Your task to perform on an android device: Find coffee shops on Maps Image 0: 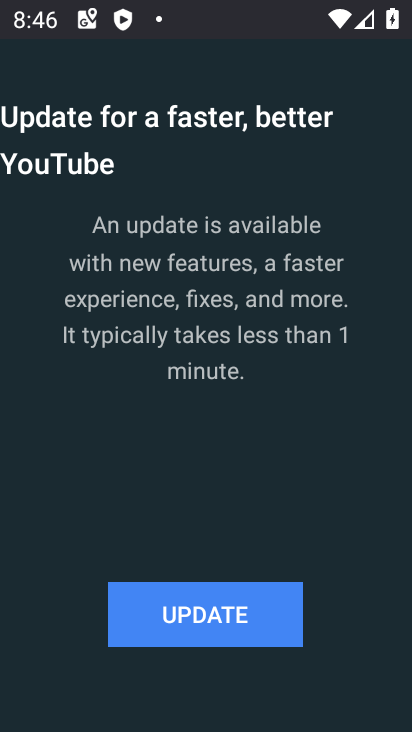
Step 0: press back button
Your task to perform on an android device: Find coffee shops on Maps Image 1: 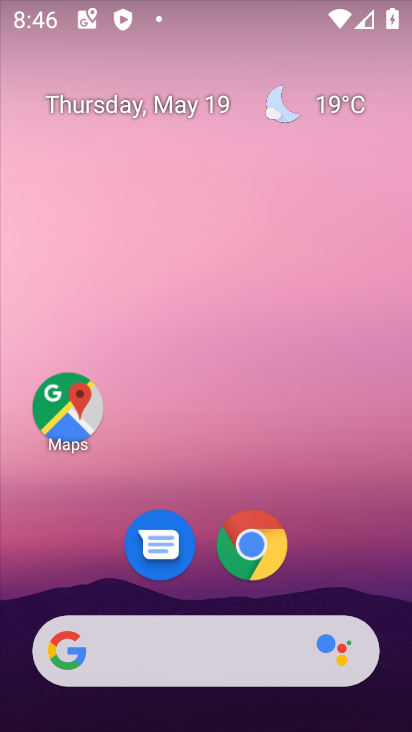
Step 1: click (337, 553)
Your task to perform on an android device: Find coffee shops on Maps Image 2: 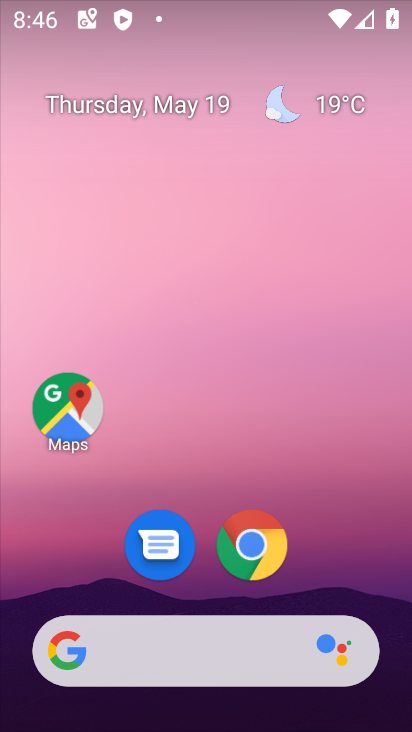
Step 2: click (274, 553)
Your task to perform on an android device: Find coffee shops on Maps Image 3: 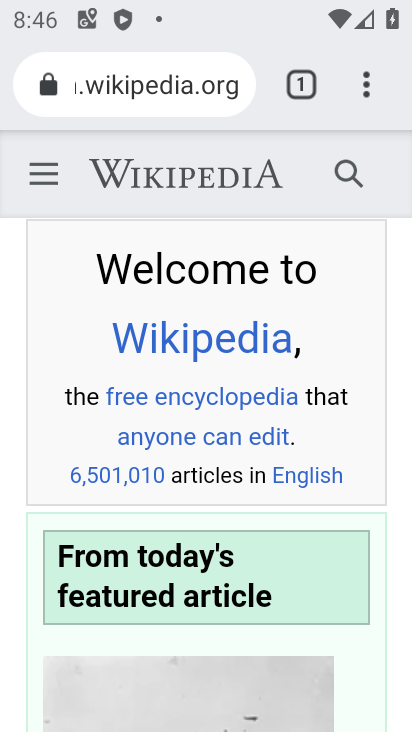
Step 3: press home button
Your task to perform on an android device: Find coffee shops on Maps Image 4: 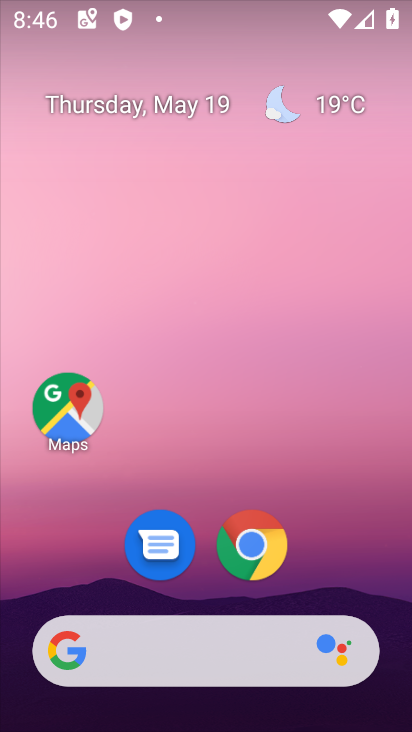
Step 4: click (98, 417)
Your task to perform on an android device: Find coffee shops on Maps Image 5: 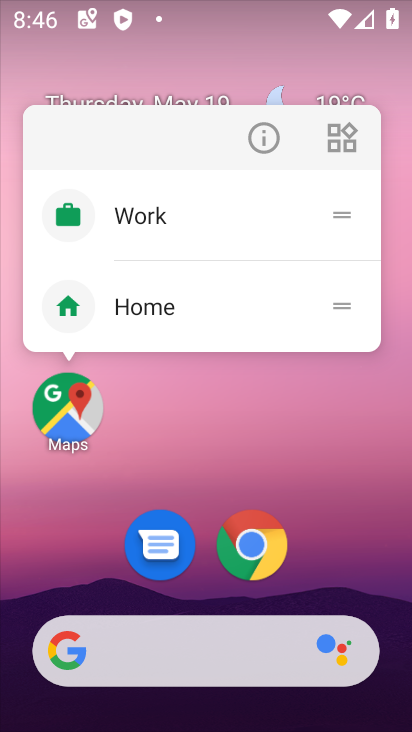
Step 5: click (155, 379)
Your task to perform on an android device: Find coffee shops on Maps Image 6: 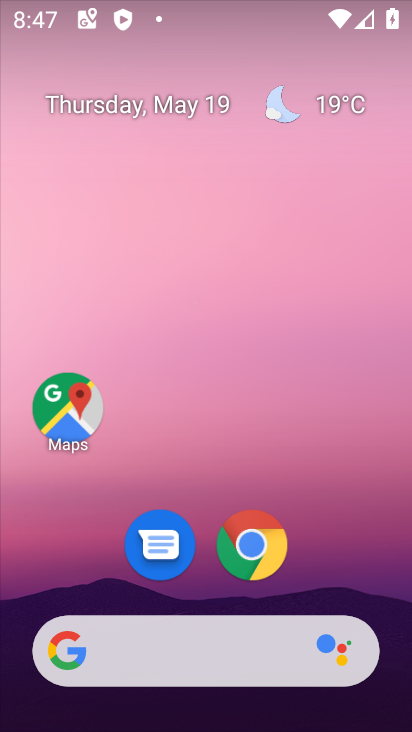
Step 6: click (61, 419)
Your task to perform on an android device: Find coffee shops on Maps Image 7: 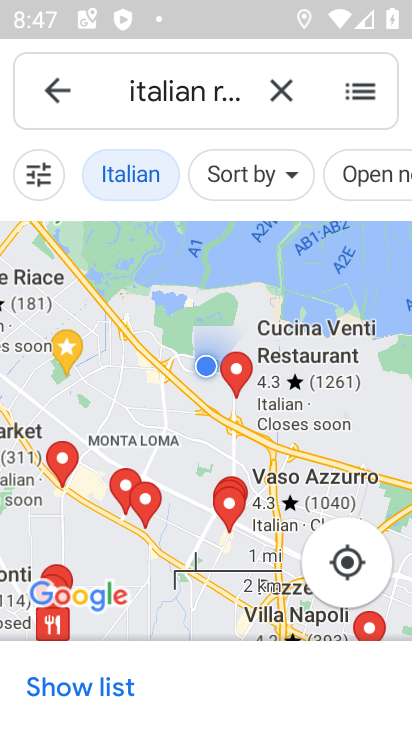
Step 7: click (289, 88)
Your task to perform on an android device: Find coffee shops on Maps Image 8: 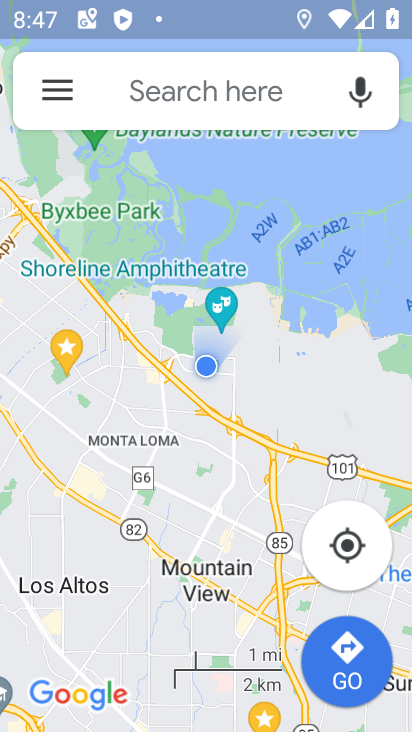
Step 8: click (289, 88)
Your task to perform on an android device: Find coffee shops on Maps Image 9: 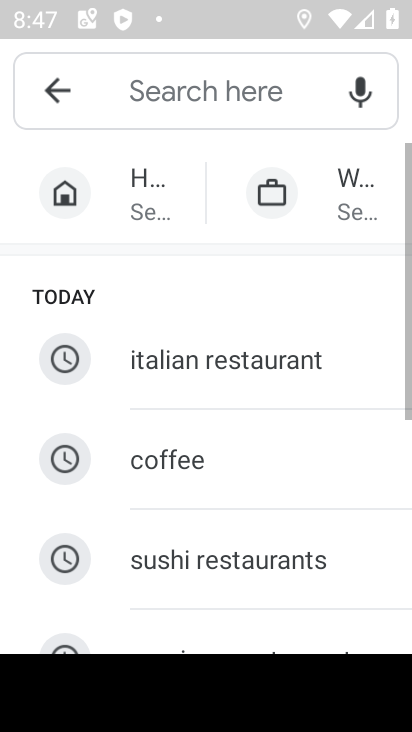
Step 9: click (274, 456)
Your task to perform on an android device: Find coffee shops on Maps Image 10: 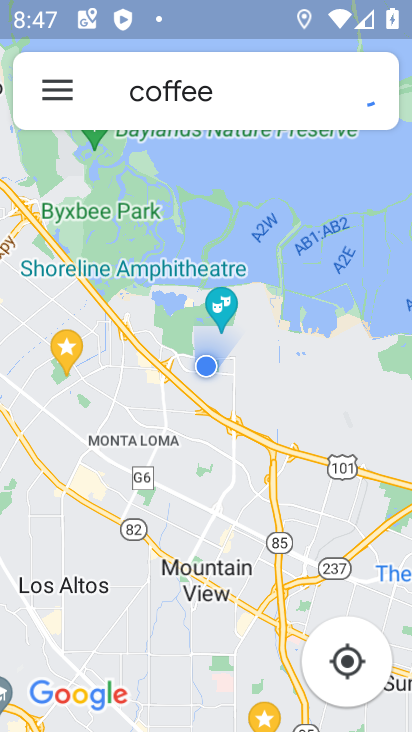
Step 10: task complete